Your task to perform on an android device: open device folders in google photos Image 0: 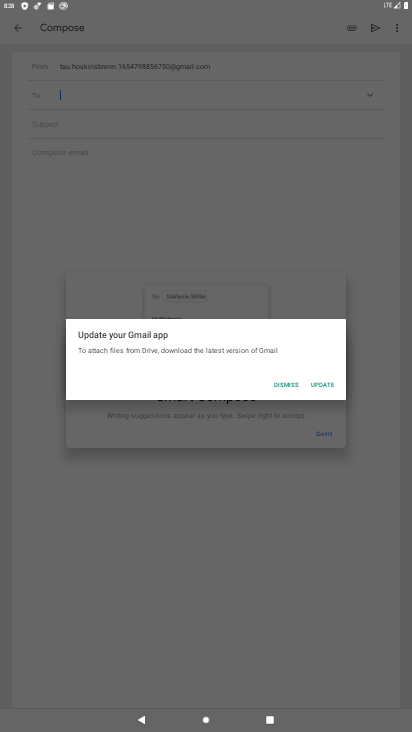
Step 0: press home button
Your task to perform on an android device: open device folders in google photos Image 1: 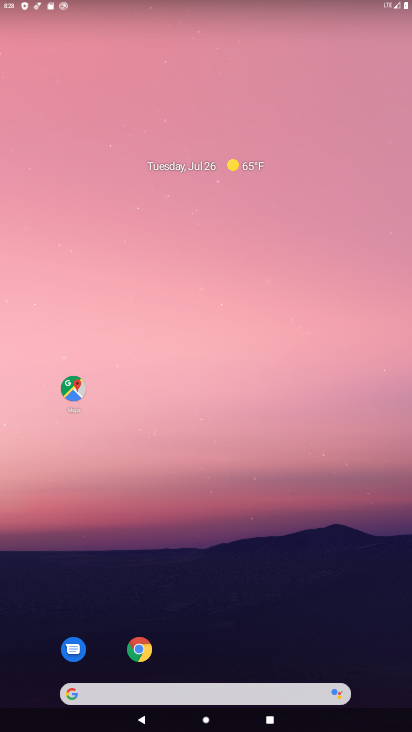
Step 1: drag from (175, 697) to (356, 8)
Your task to perform on an android device: open device folders in google photos Image 2: 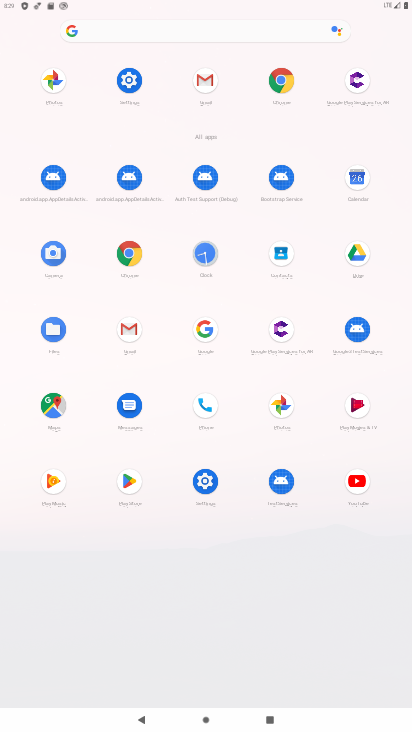
Step 2: click (280, 405)
Your task to perform on an android device: open device folders in google photos Image 3: 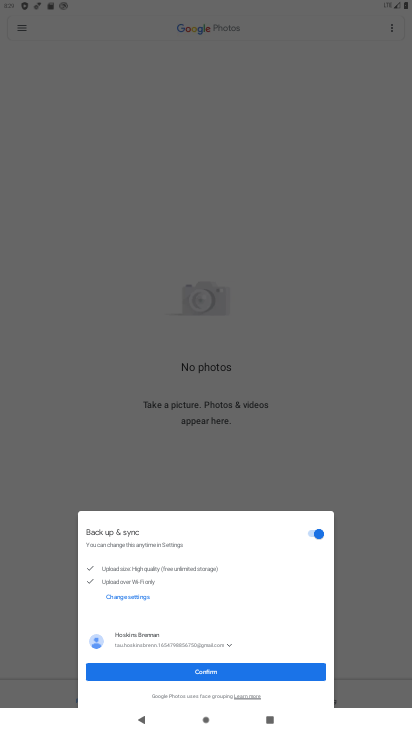
Step 3: click (209, 673)
Your task to perform on an android device: open device folders in google photos Image 4: 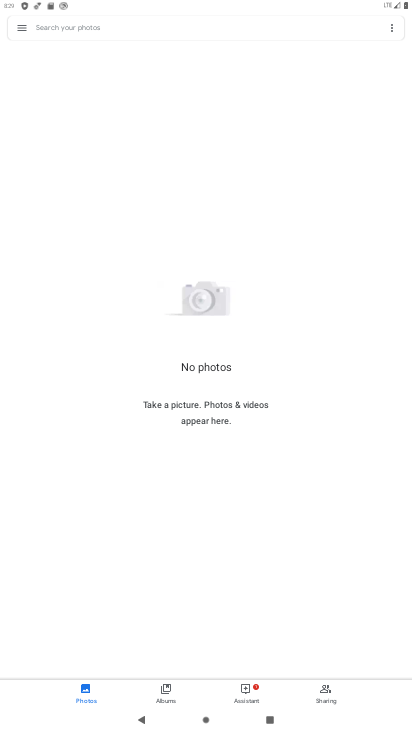
Step 4: click (22, 30)
Your task to perform on an android device: open device folders in google photos Image 5: 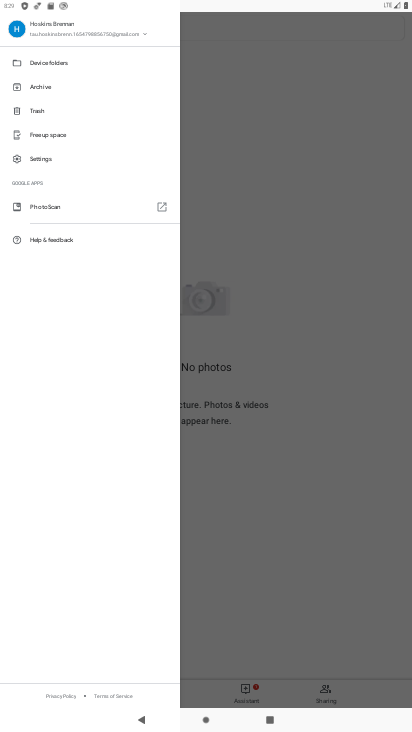
Step 5: click (60, 64)
Your task to perform on an android device: open device folders in google photos Image 6: 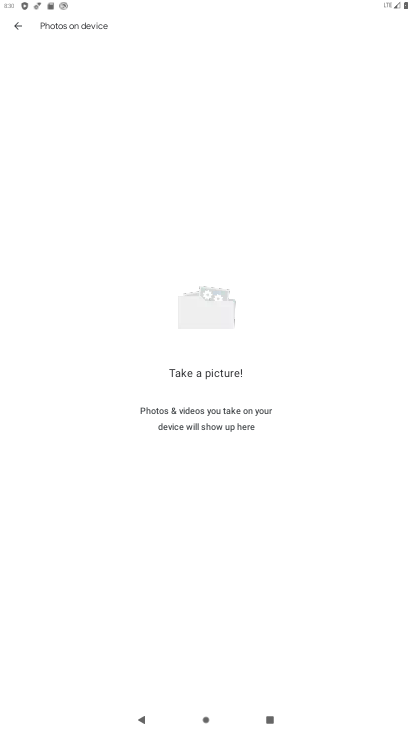
Step 6: task complete